Your task to perform on an android device: manage bookmarks in the chrome app Image 0: 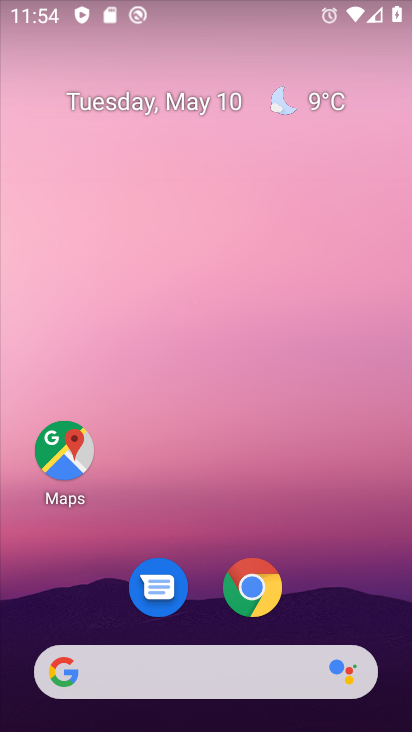
Step 0: click (250, 599)
Your task to perform on an android device: manage bookmarks in the chrome app Image 1: 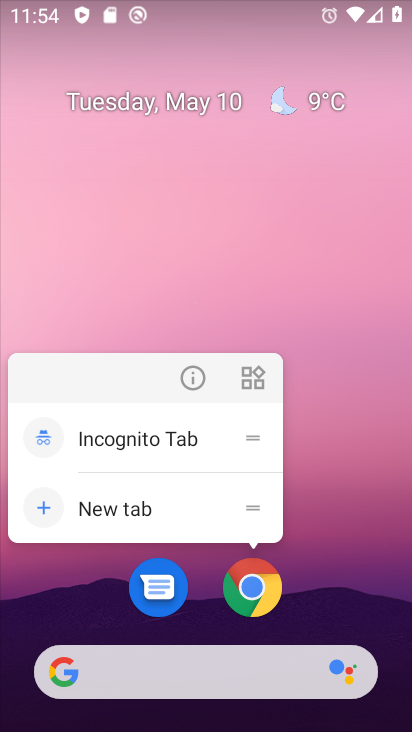
Step 1: click (250, 594)
Your task to perform on an android device: manage bookmarks in the chrome app Image 2: 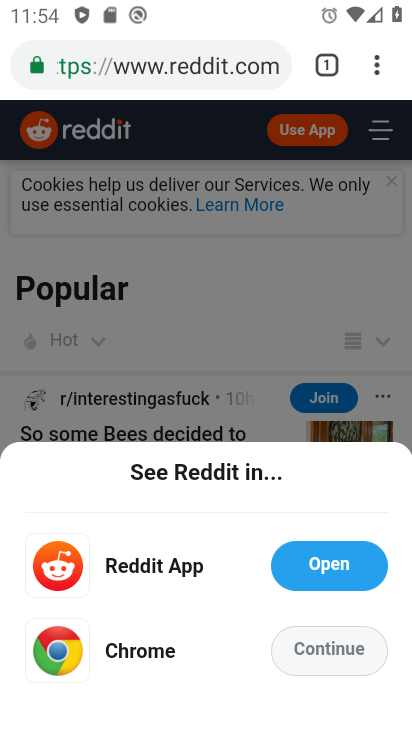
Step 2: task complete